Your task to perform on an android device: Open internet settings Image 0: 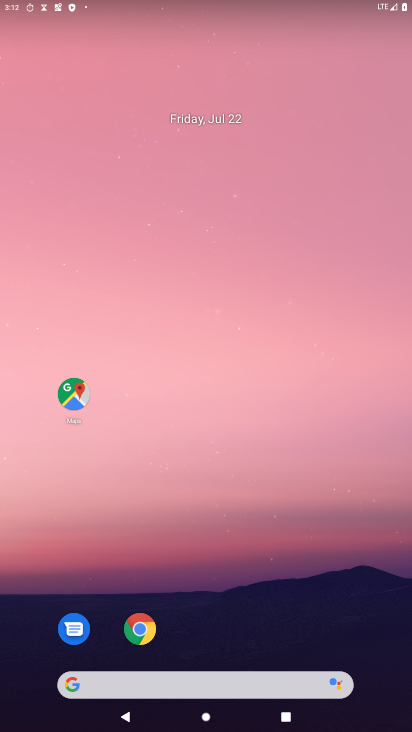
Step 0: drag from (248, 666) to (329, 0)
Your task to perform on an android device: Open internet settings Image 1: 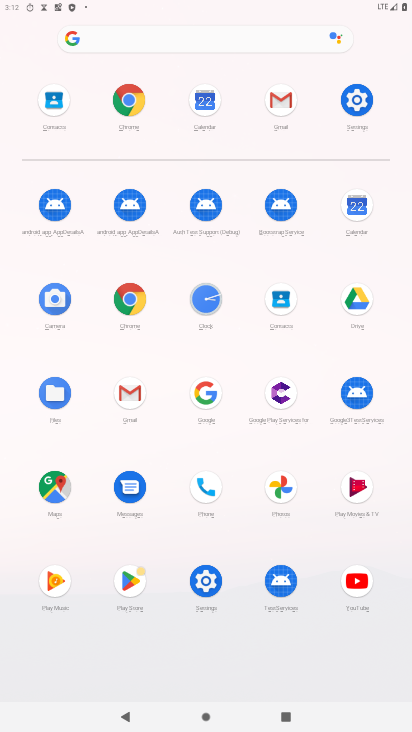
Step 1: click (361, 106)
Your task to perform on an android device: Open internet settings Image 2: 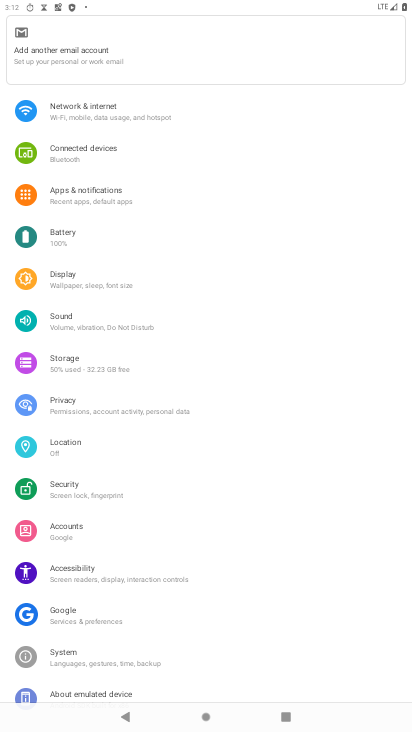
Step 2: click (122, 116)
Your task to perform on an android device: Open internet settings Image 3: 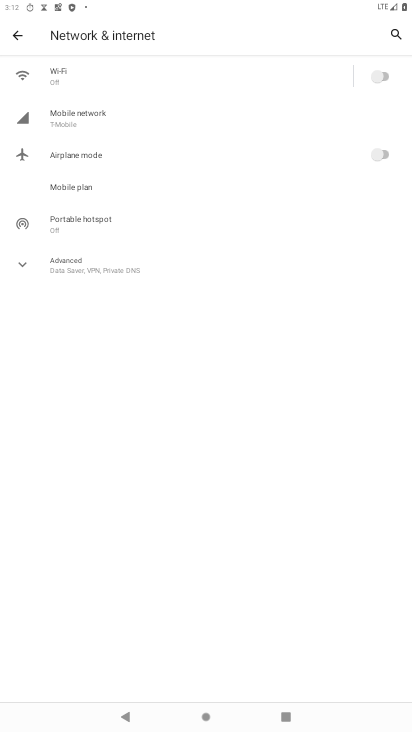
Step 3: task complete